Your task to perform on an android device: Clear the shopping cart on amazon.com. Image 0: 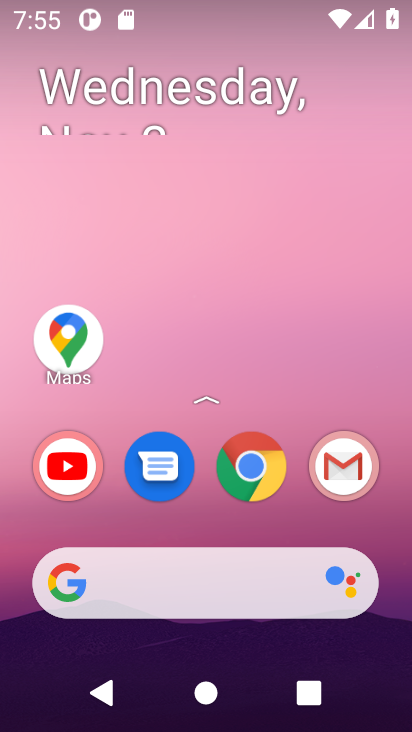
Step 0: click (168, 590)
Your task to perform on an android device: Clear the shopping cart on amazon.com. Image 1: 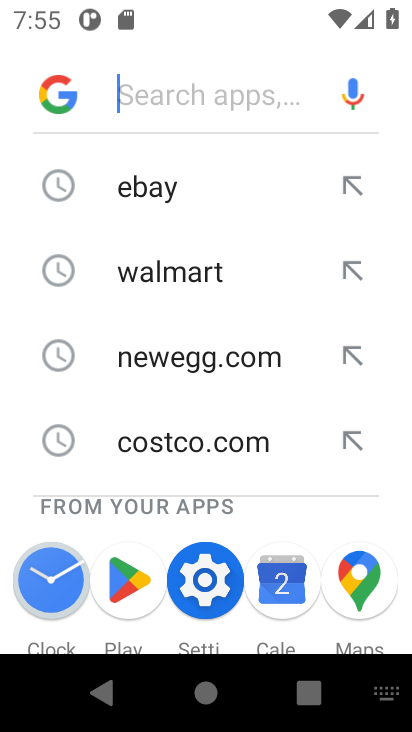
Step 1: type "amazon.com."
Your task to perform on an android device: Clear the shopping cart on amazon.com. Image 2: 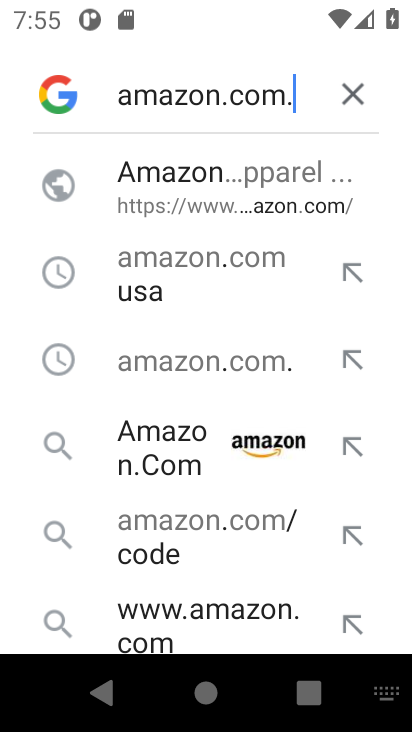
Step 2: type ""
Your task to perform on an android device: Clear the shopping cart on amazon.com. Image 3: 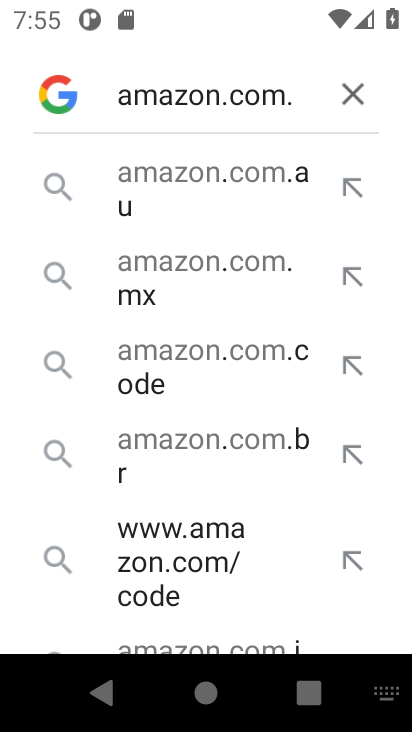
Step 3: click (179, 182)
Your task to perform on an android device: Clear the shopping cart on amazon.com. Image 4: 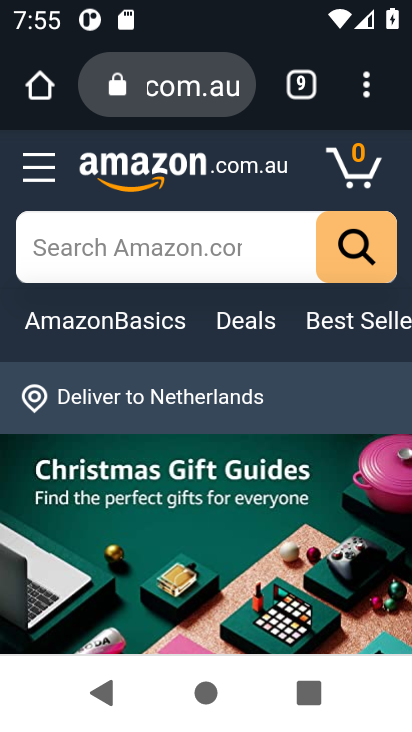
Step 4: click (252, 263)
Your task to perform on an android device: Clear the shopping cart on amazon.com. Image 5: 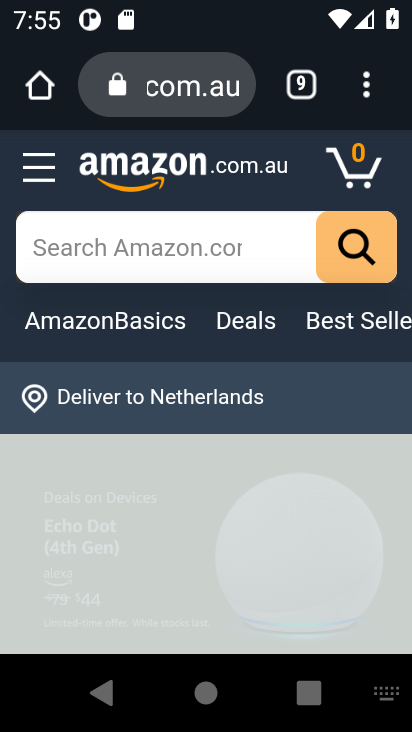
Step 5: click (353, 162)
Your task to perform on an android device: Clear the shopping cart on amazon.com. Image 6: 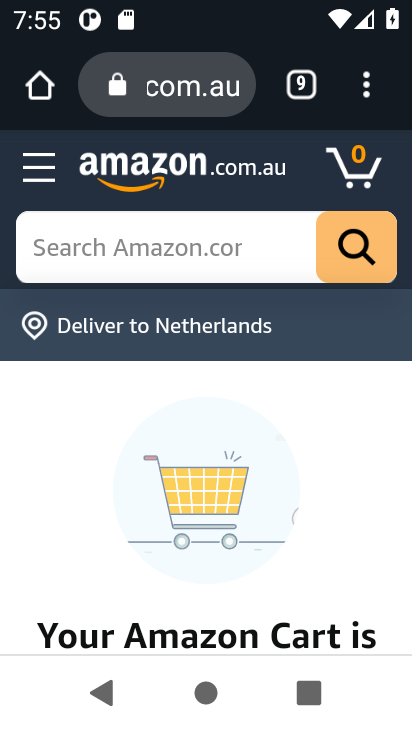
Step 6: click (361, 160)
Your task to perform on an android device: Clear the shopping cart on amazon.com. Image 7: 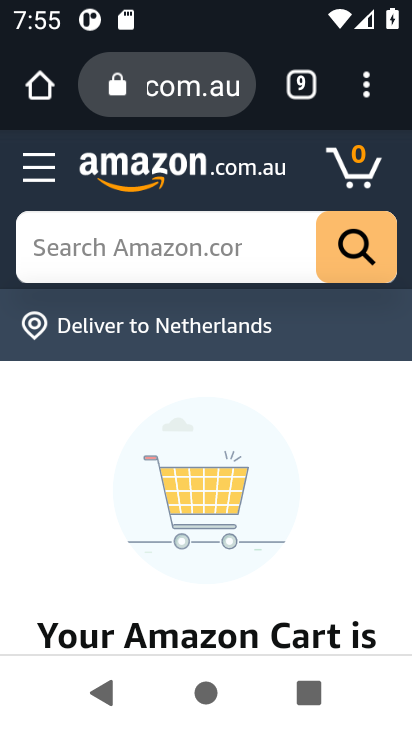
Step 7: task complete